Your task to perform on an android device: Open my contact list Image 0: 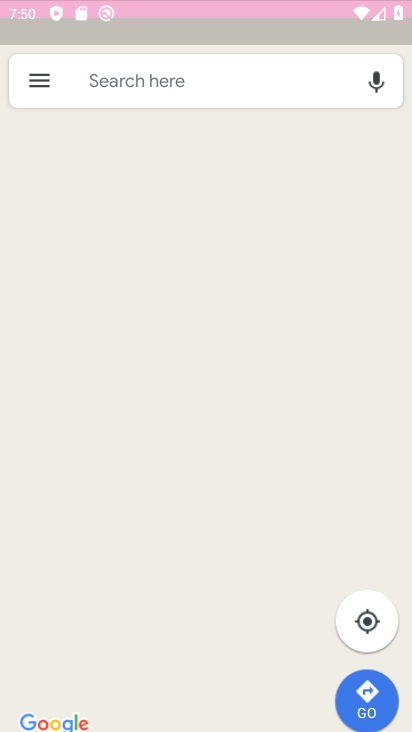
Step 0: drag from (185, 632) to (86, 695)
Your task to perform on an android device: Open my contact list Image 1: 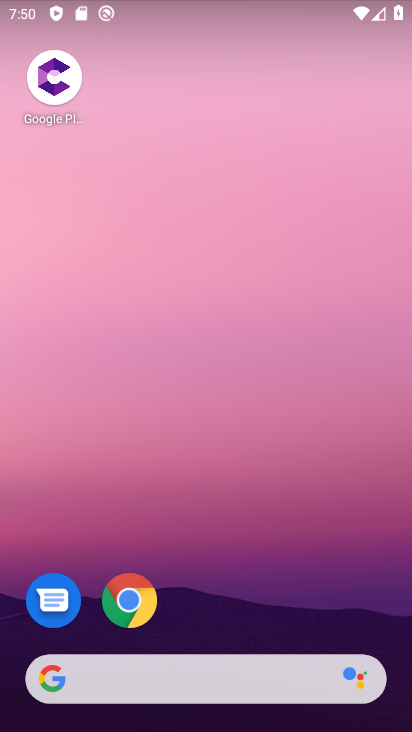
Step 1: drag from (224, 636) to (357, 21)
Your task to perform on an android device: Open my contact list Image 2: 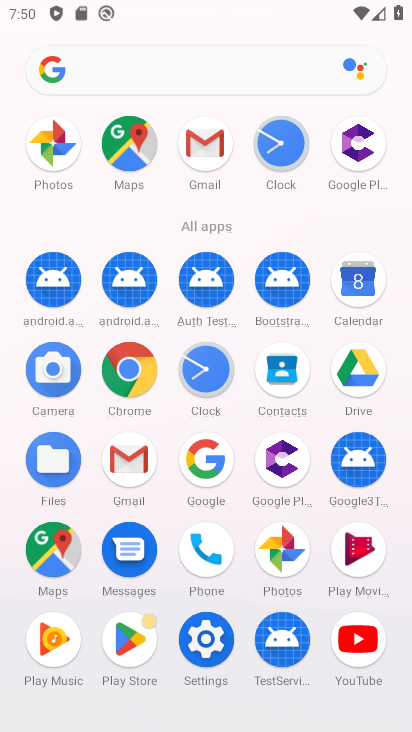
Step 2: click (220, 552)
Your task to perform on an android device: Open my contact list Image 3: 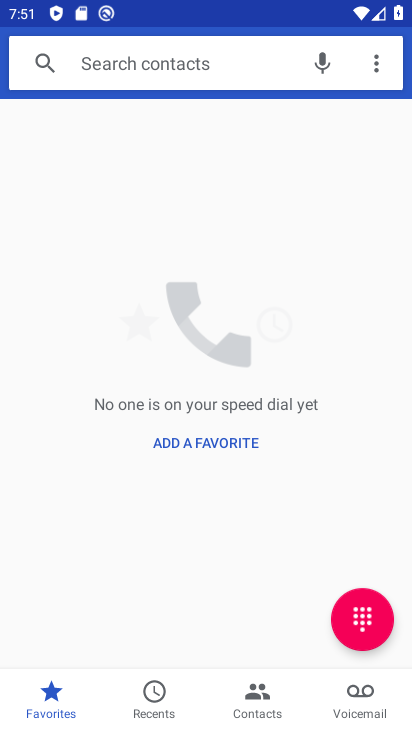
Step 3: click (254, 700)
Your task to perform on an android device: Open my contact list Image 4: 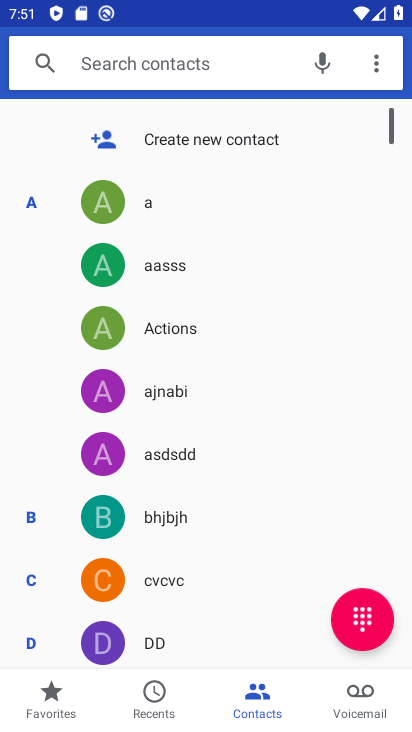
Step 4: task complete